Your task to perform on an android device: Search for a custom-made wallet on Etsy Image 0: 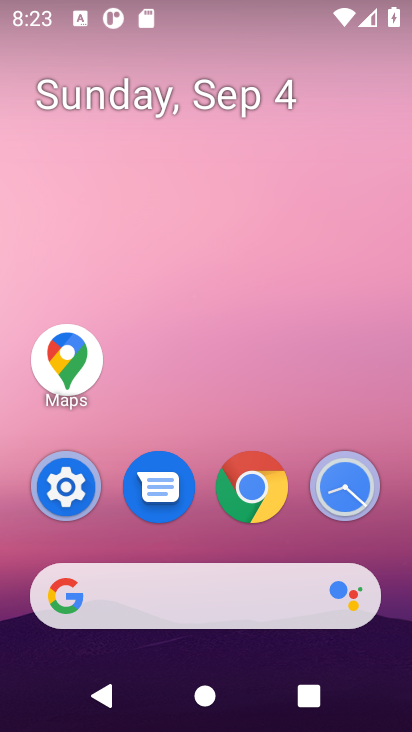
Step 0: click (257, 499)
Your task to perform on an android device: Search for a custom-made wallet on Etsy Image 1: 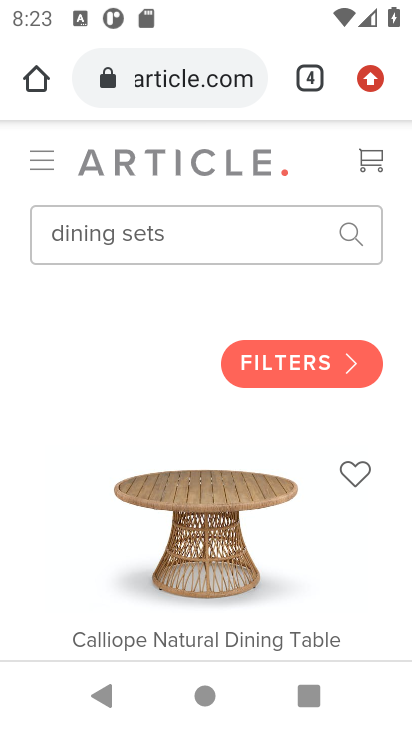
Step 1: click (308, 74)
Your task to perform on an android device: Search for a custom-made wallet on Etsy Image 2: 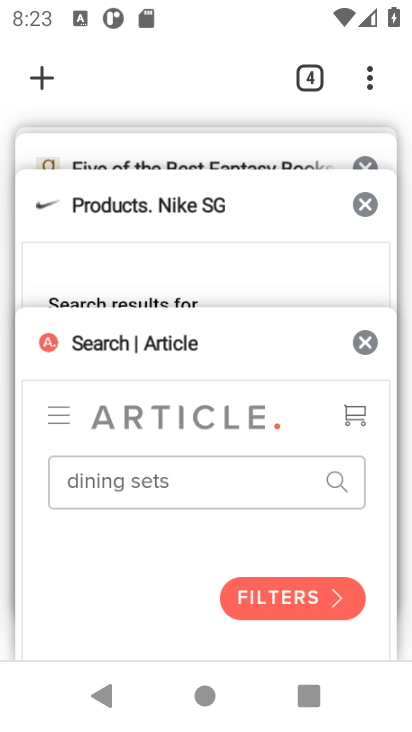
Step 2: click (40, 78)
Your task to perform on an android device: Search for a custom-made wallet on Etsy Image 3: 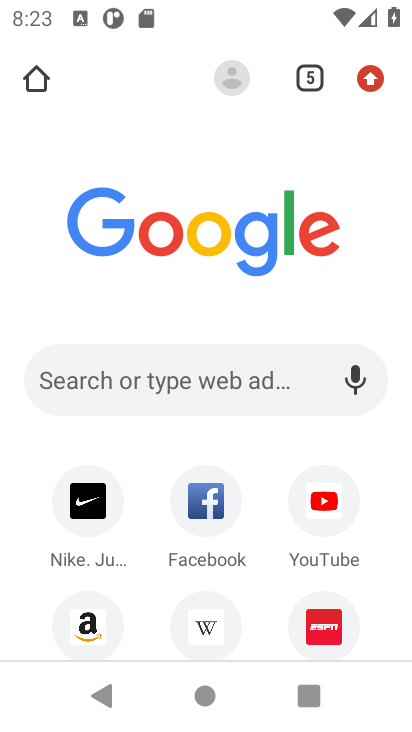
Step 3: drag from (149, 571) to (230, 107)
Your task to perform on an android device: Search for a custom-made wallet on Etsy Image 4: 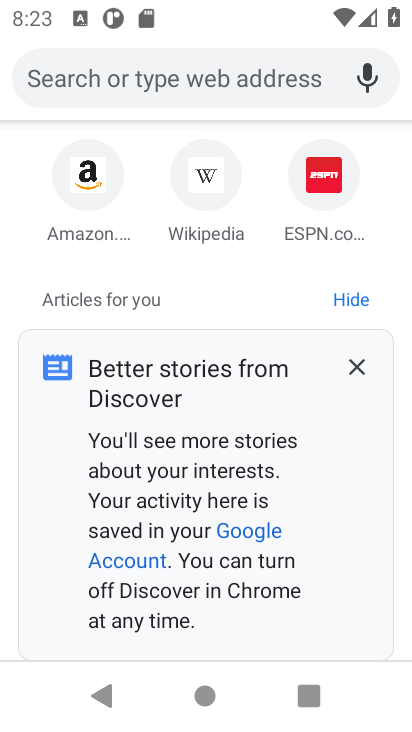
Step 4: click (224, 70)
Your task to perform on an android device: Search for a custom-made wallet on Etsy Image 5: 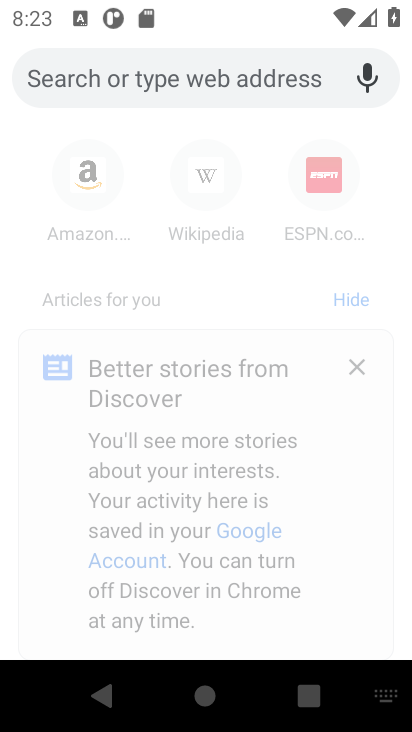
Step 5: type "etsy.com"
Your task to perform on an android device: Search for a custom-made wallet on Etsy Image 6: 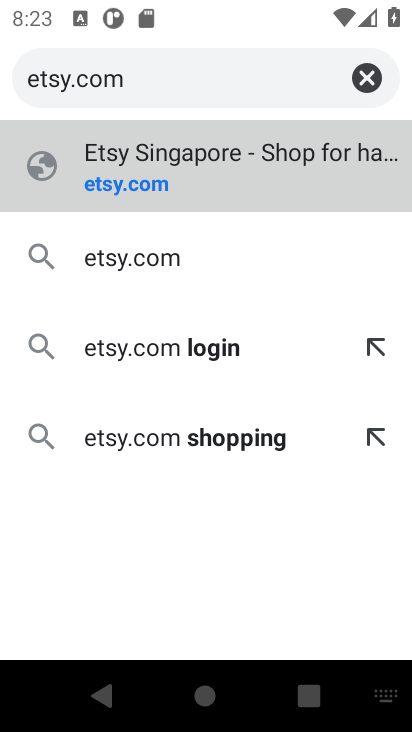
Step 6: click (211, 170)
Your task to perform on an android device: Search for a custom-made wallet on Etsy Image 7: 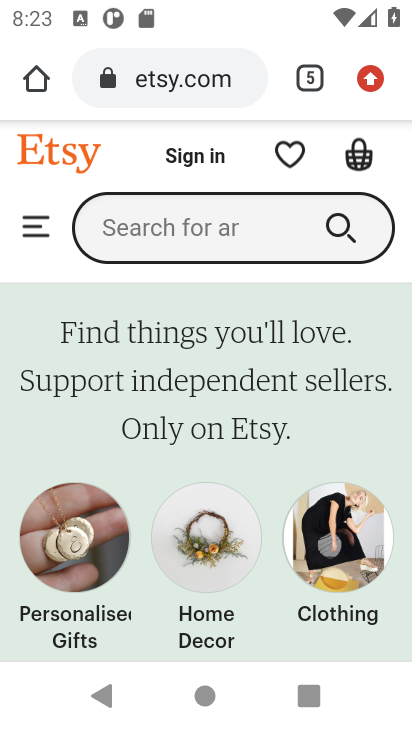
Step 7: click (252, 232)
Your task to perform on an android device: Search for a custom-made wallet on Etsy Image 8: 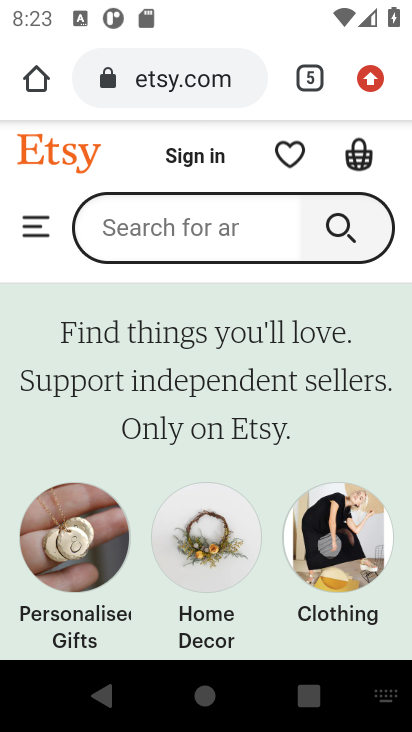
Step 8: type "custom-made wallet"
Your task to perform on an android device: Search for a custom-made wallet on Etsy Image 9: 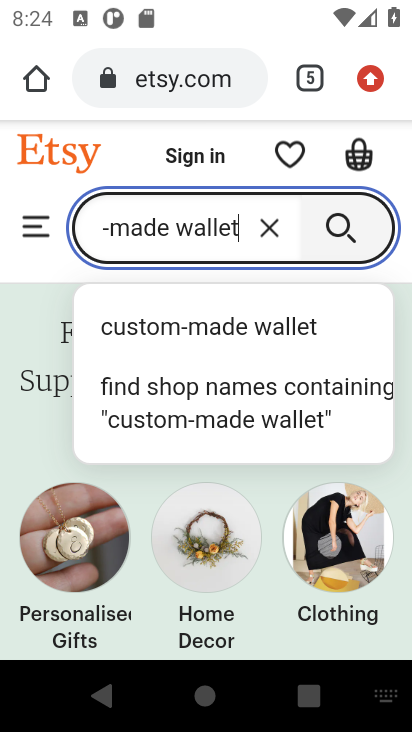
Step 9: click (284, 333)
Your task to perform on an android device: Search for a custom-made wallet on Etsy Image 10: 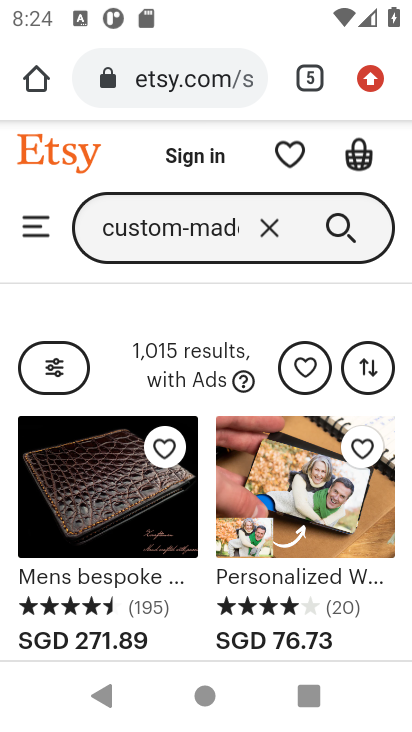
Step 10: task complete